Your task to perform on an android device: turn on bluetooth scan Image 0: 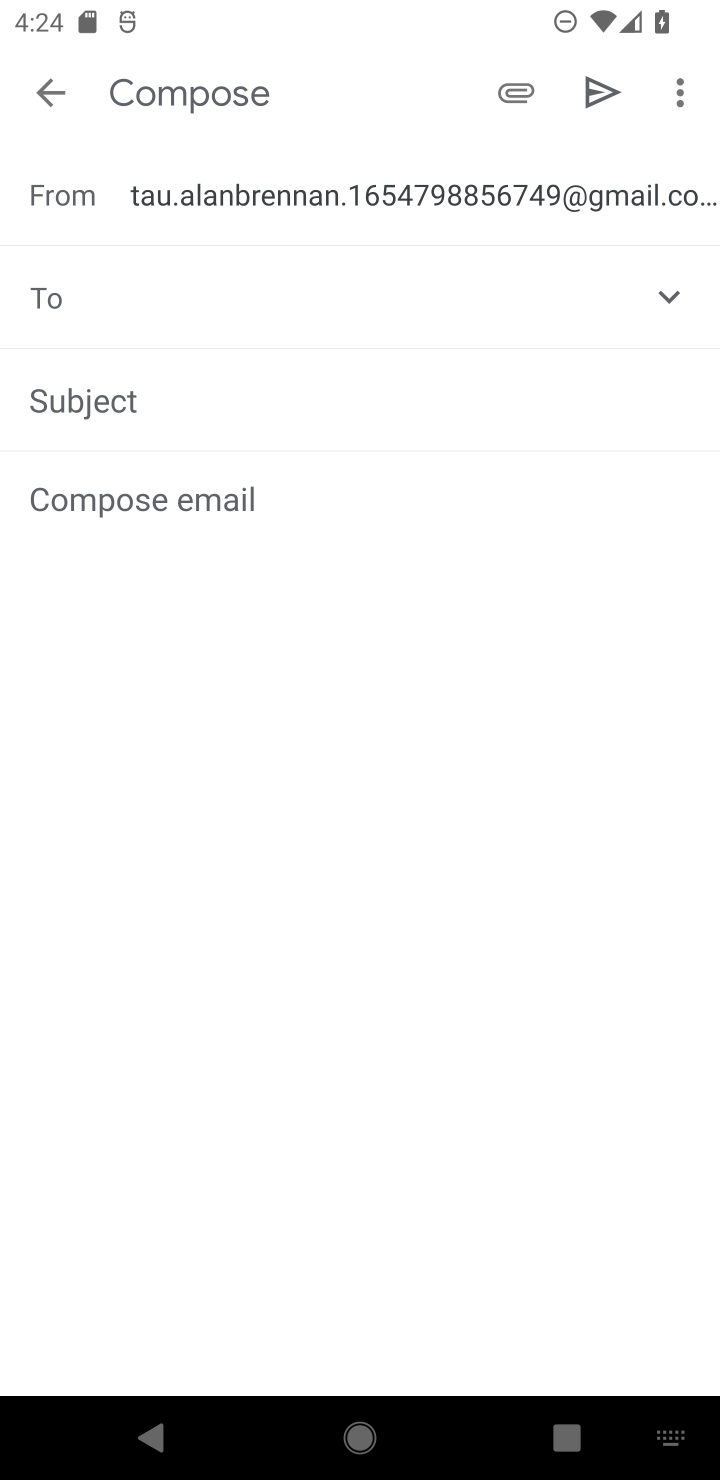
Step 0: press home button
Your task to perform on an android device: turn on bluetooth scan Image 1: 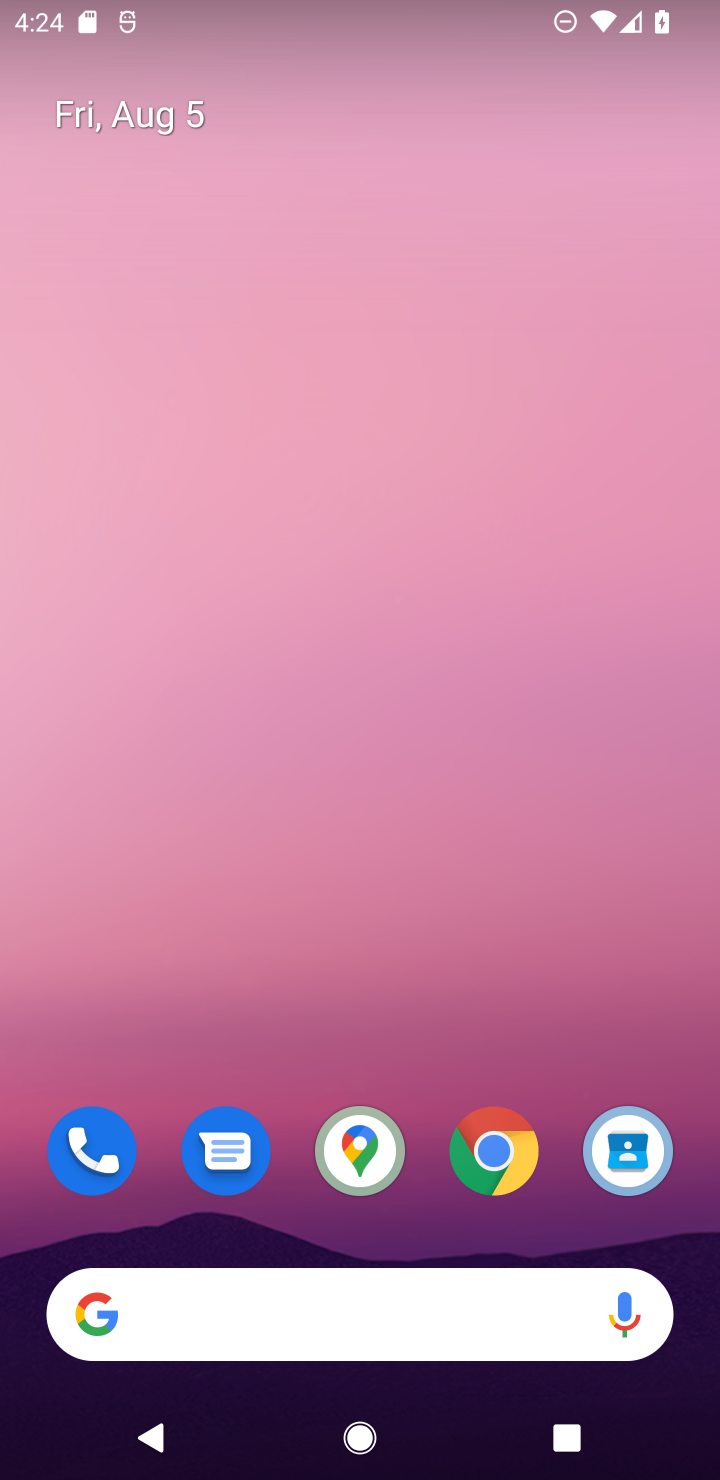
Step 1: drag from (317, 1070) to (248, 646)
Your task to perform on an android device: turn on bluetooth scan Image 2: 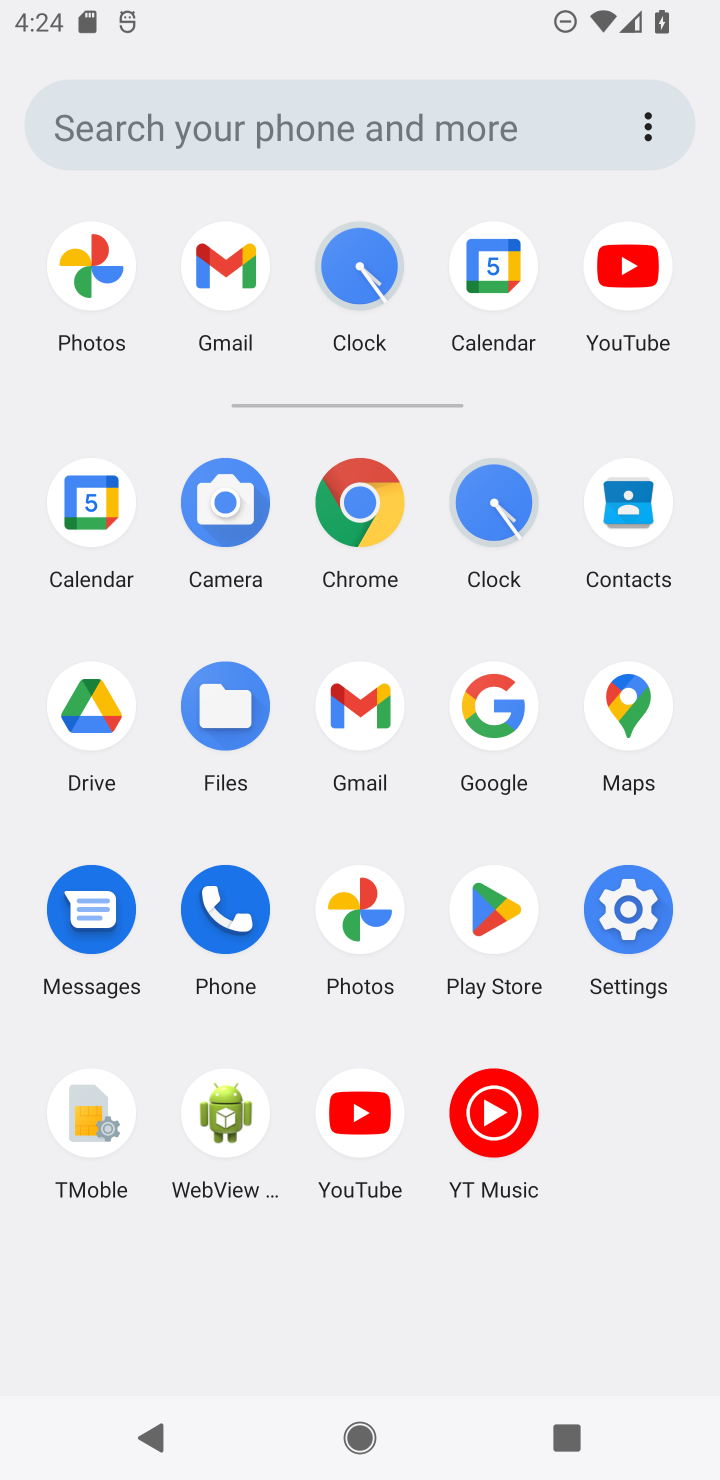
Step 2: click (637, 889)
Your task to perform on an android device: turn on bluetooth scan Image 3: 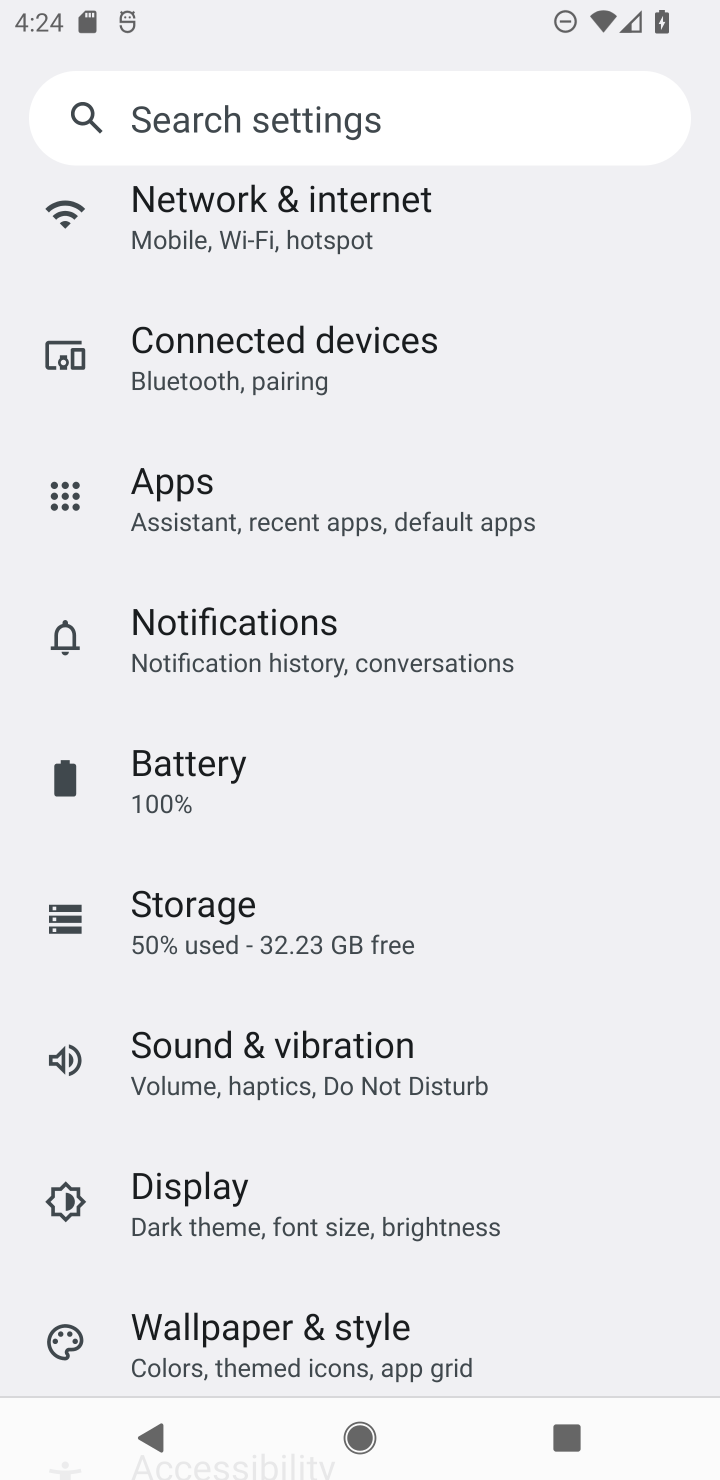
Step 3: drag from (300, 1200) to (198, 758)
Your task to perform on an android device: turn on bluetooth scan Image 4: 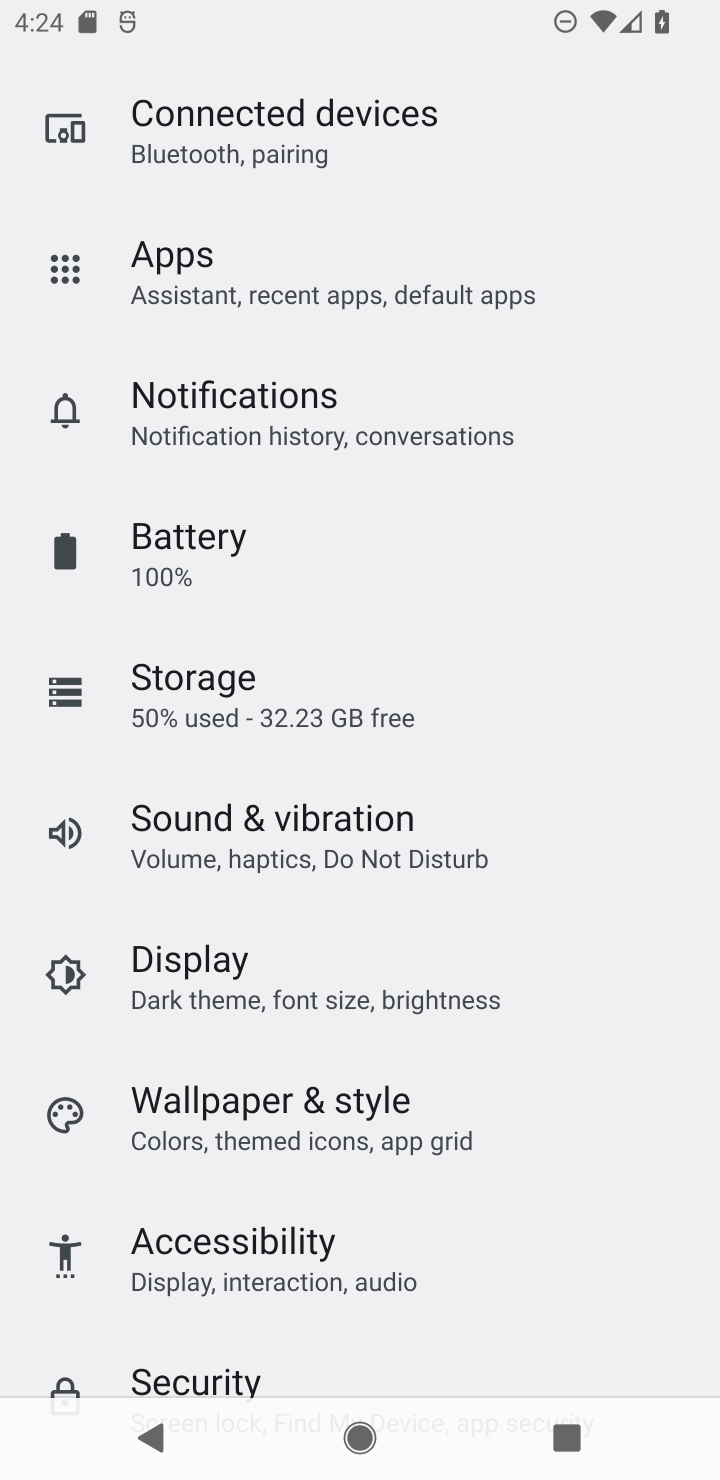
Step 4: drag from (245, 1117) to (387, 530)
Your task to perform on an android device: turn on bluetooth scan Image 5: 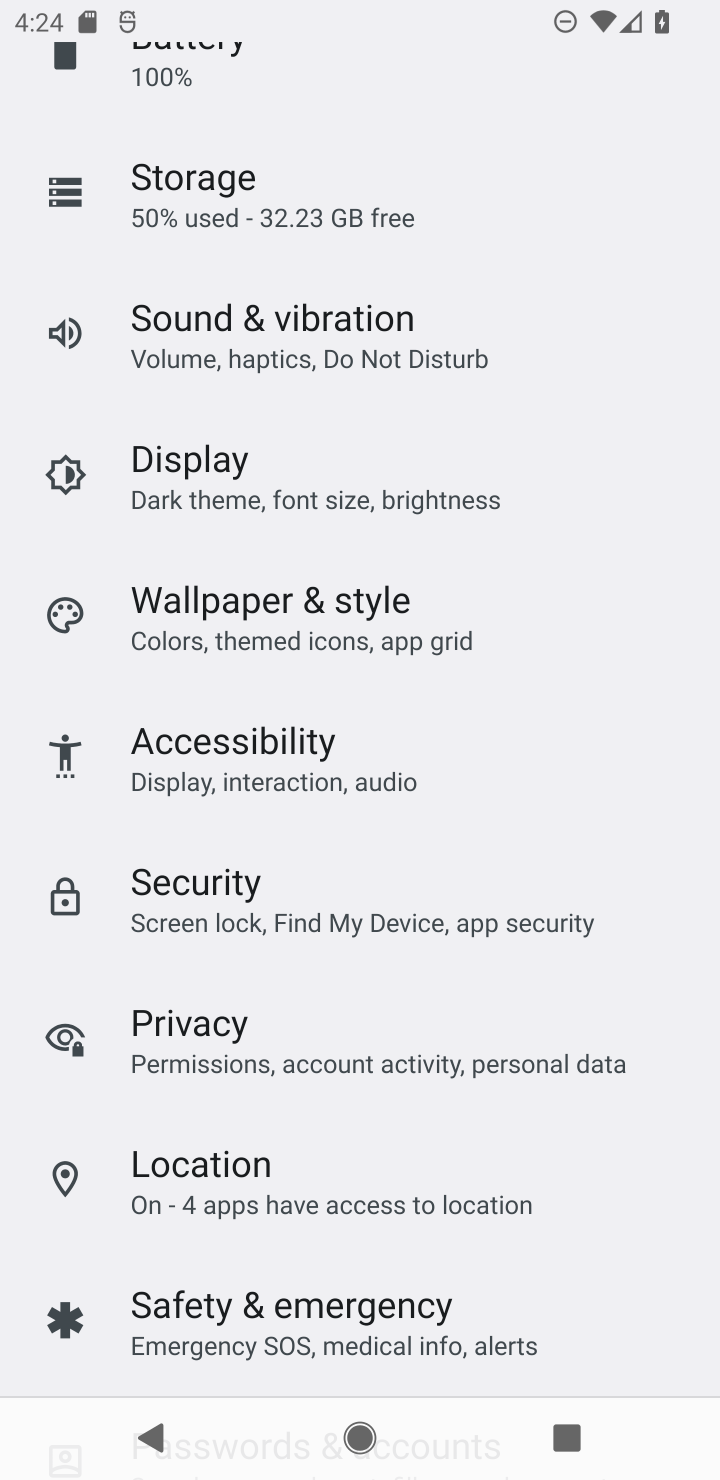
Step 5: click (292, 1157)
Your task to perform on an android device: turn on bluetooth scan Image 6: 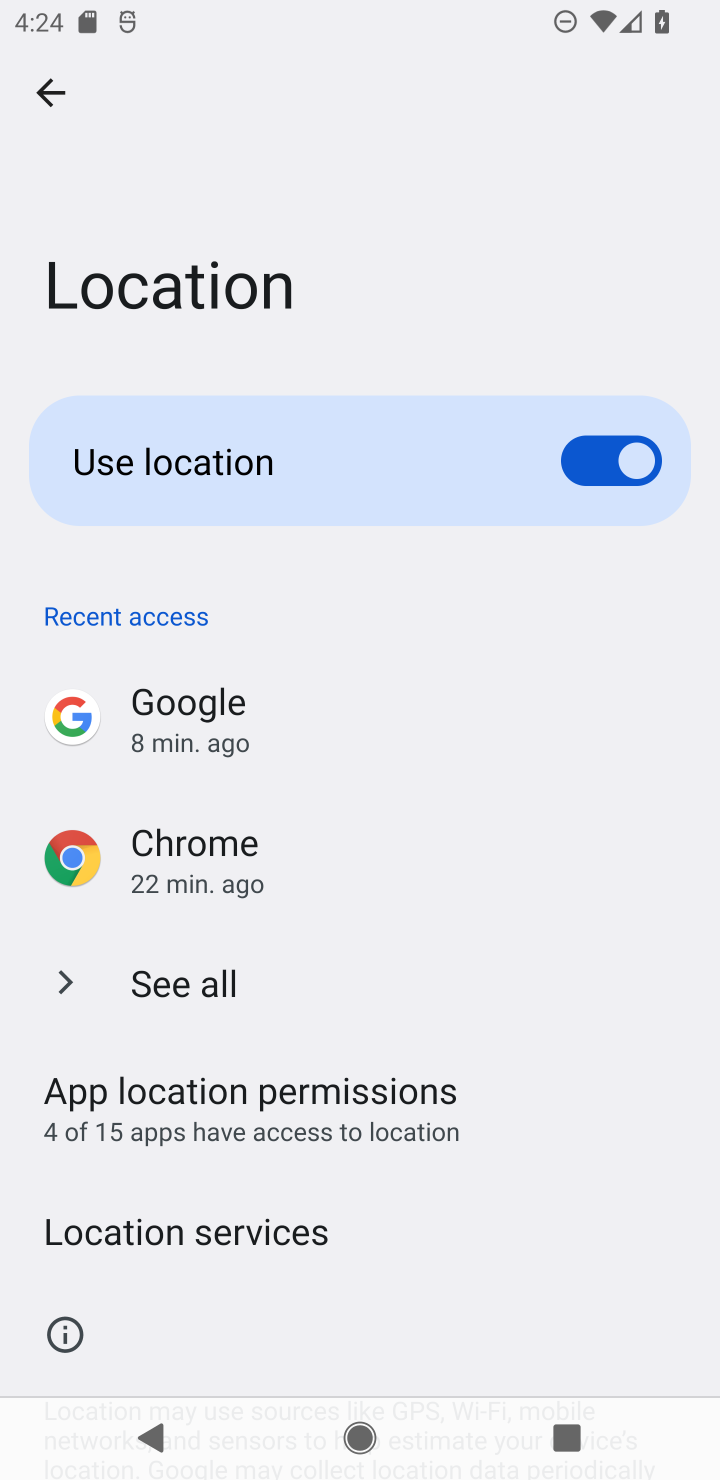
Step 6: click (160, 1286)
Your task to perform on an android device: turn on bluetooth scan Image 7: 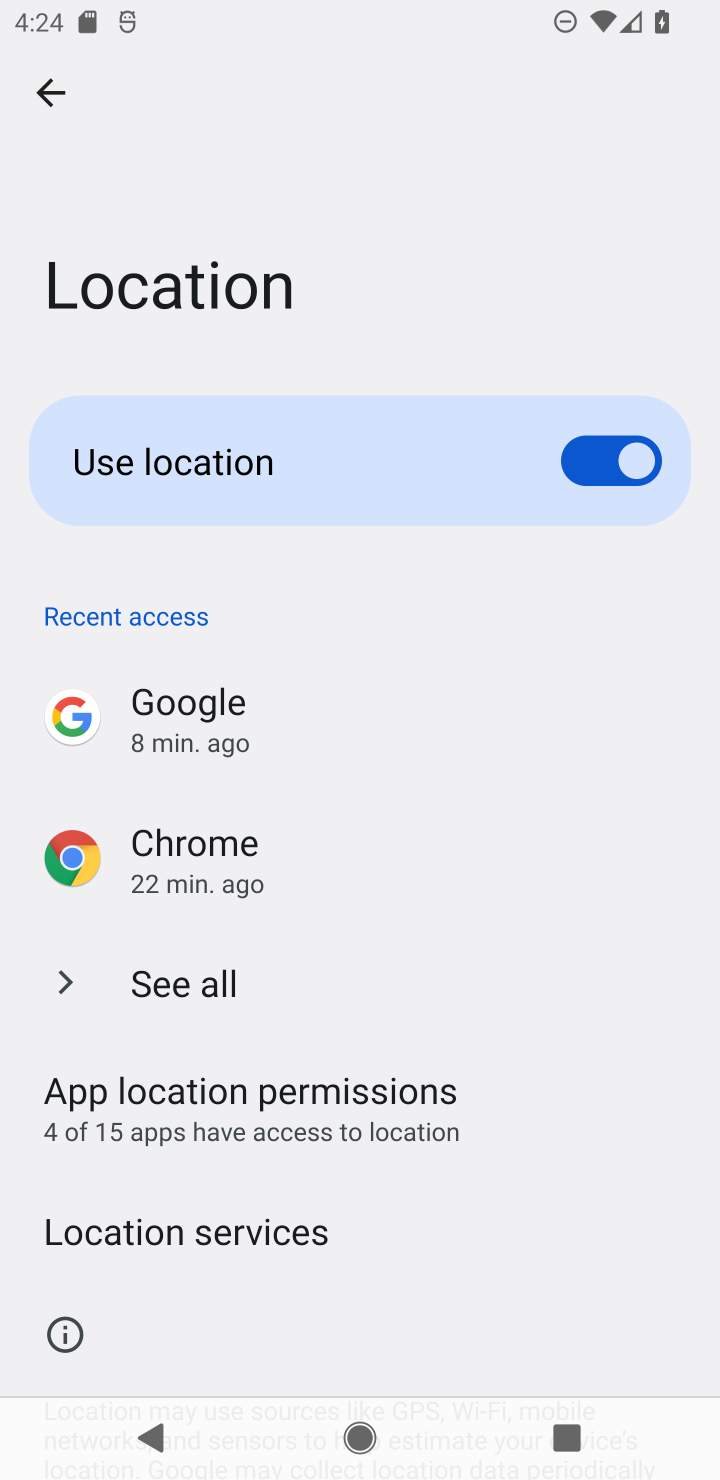
Step 7: click (198, 1250)
Your task to perform on an android device: turn on bluetooth scan Image 8: 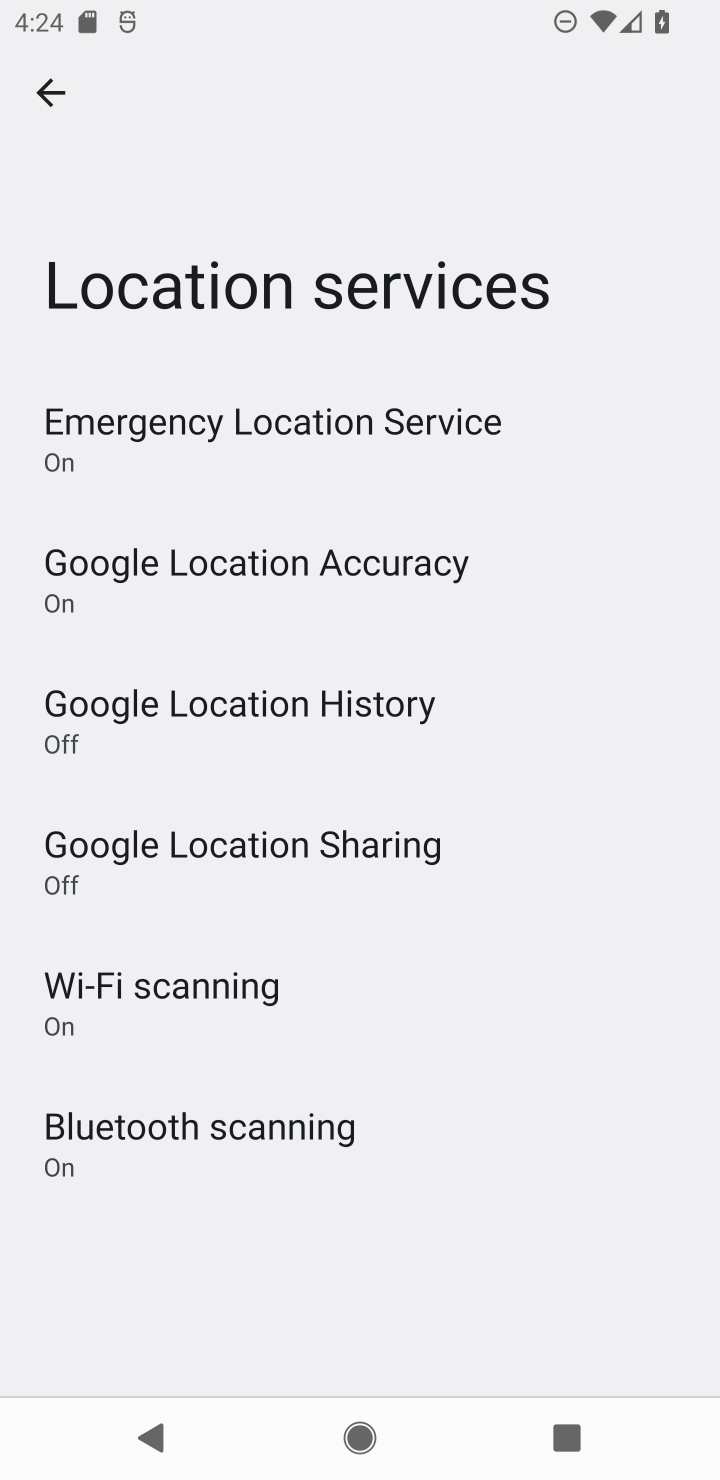
Step 8: click (311, 1093)
Your task to perform on an android device: turn on bluetooth scan Image 9: 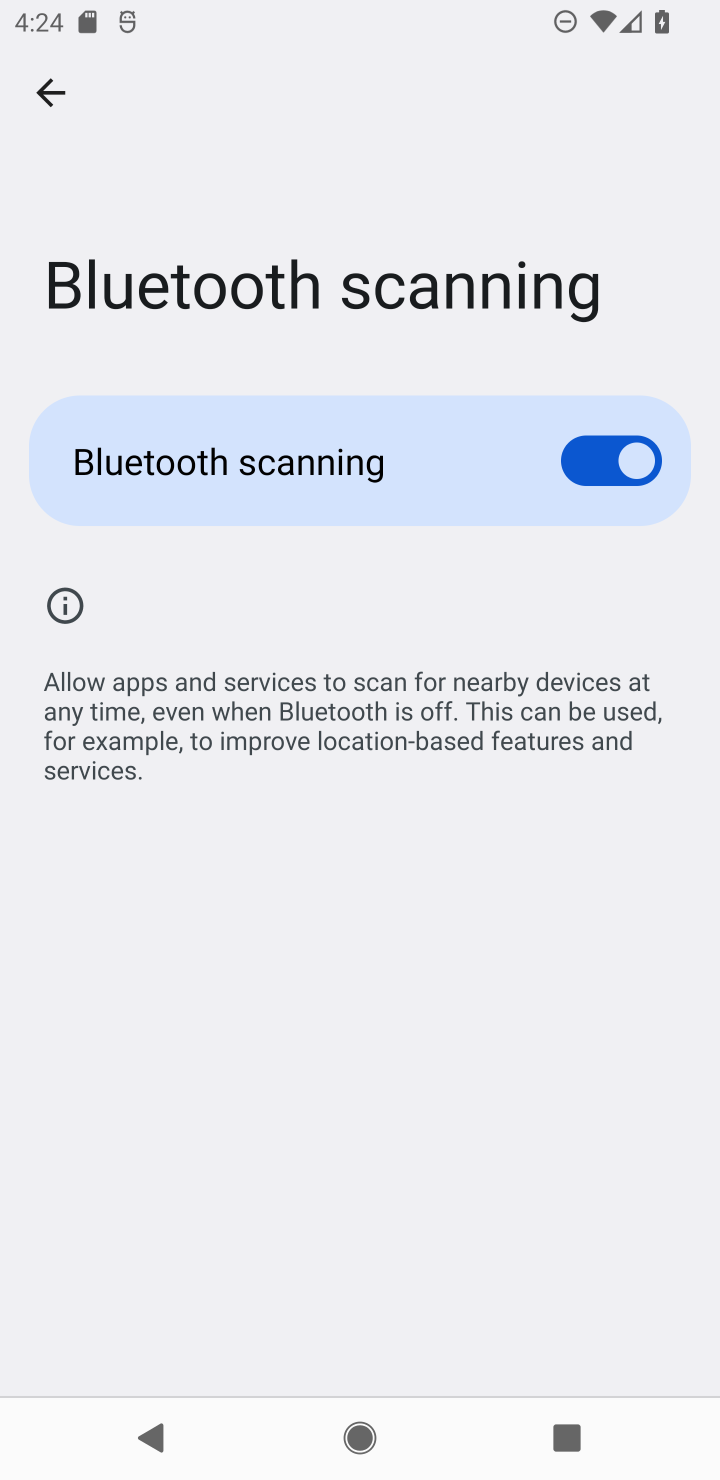
Step 9: task complete